Your task to perform on an android device: Search for "bose soundlink" on amazon, select the first entry, add it to the cart, then select checkout. Image 0: 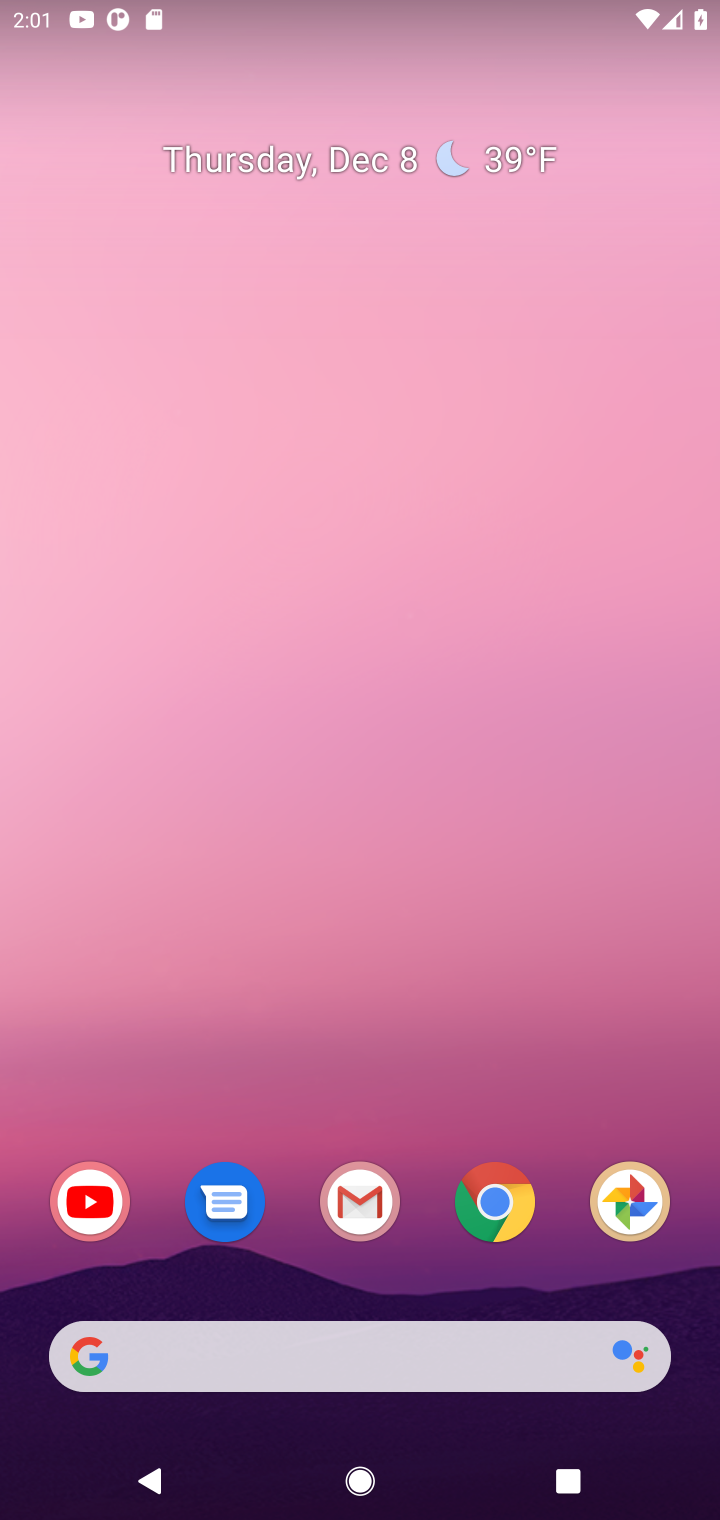
Step 0: click (504, 1187)
Your task to perform on an android device: Search for "bose soundlink" on amazon, select the first entry, add it to the cart, then select checkout. Image 1: 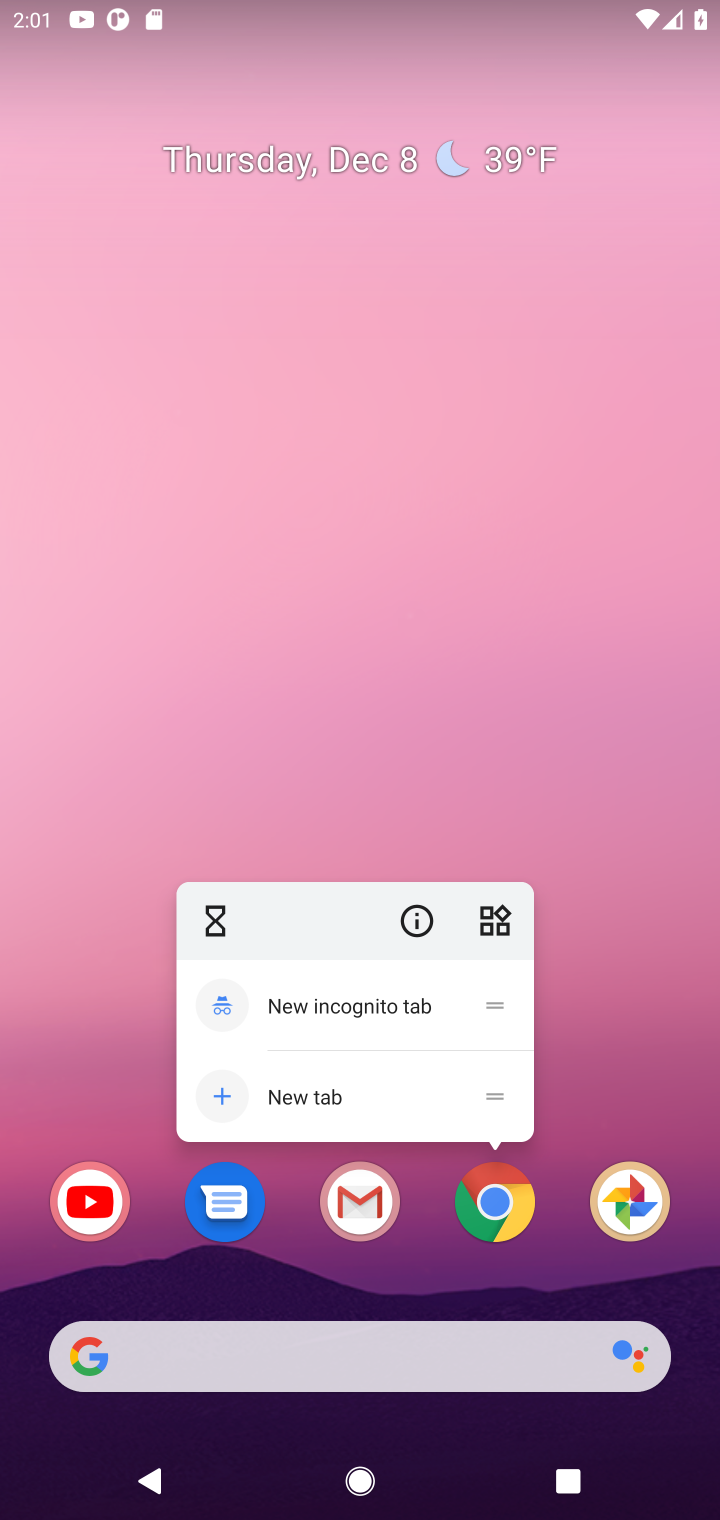
Step 1: click (512, 1180)
Your task to perform on an android device: Search for "bose soundlink" on amazon, select the first entry, add it to the cart, then select checkout. Image 2: 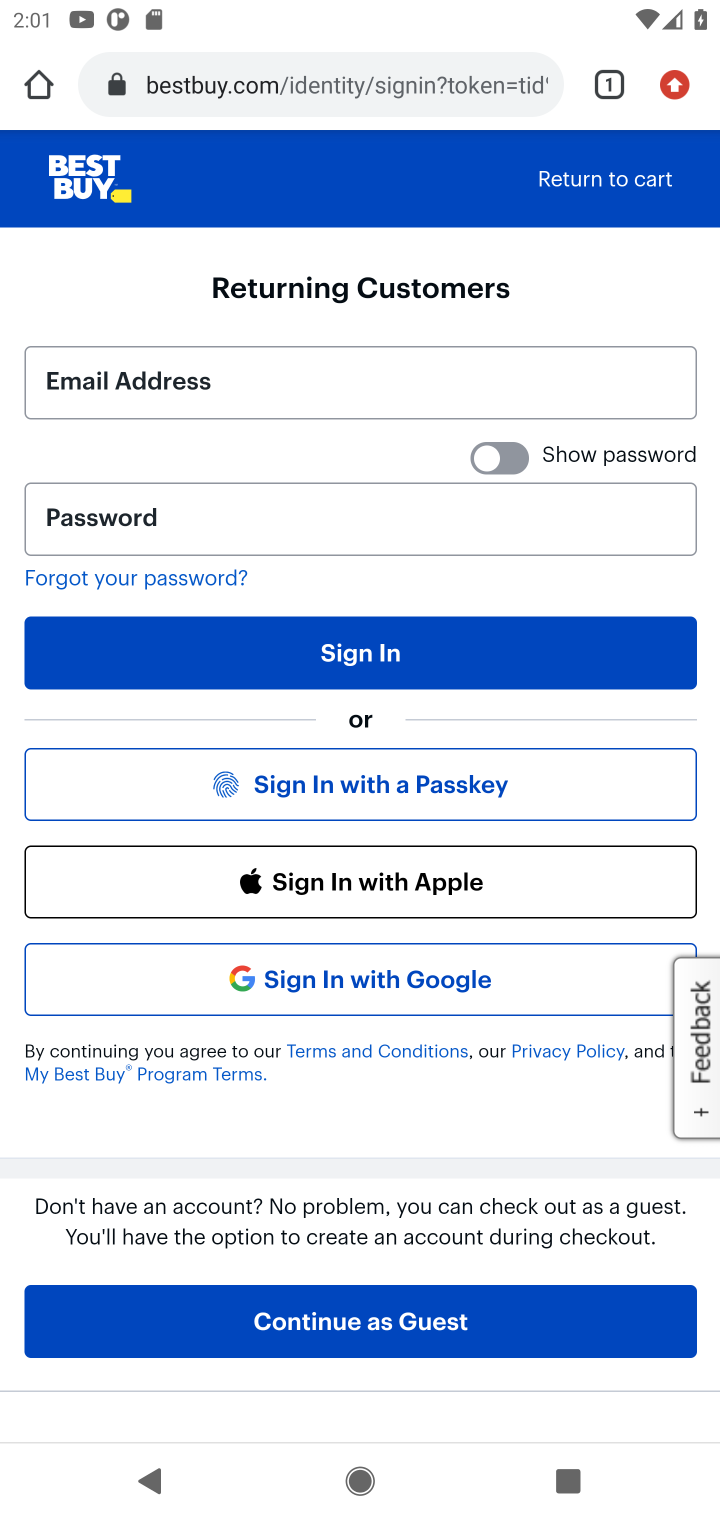
Step 2: click (253, 77)
Your task to perform on an android device: Search for "bose soundlink" on amazon, select the first entry, add it to the cart, then select checkout. Image 3: 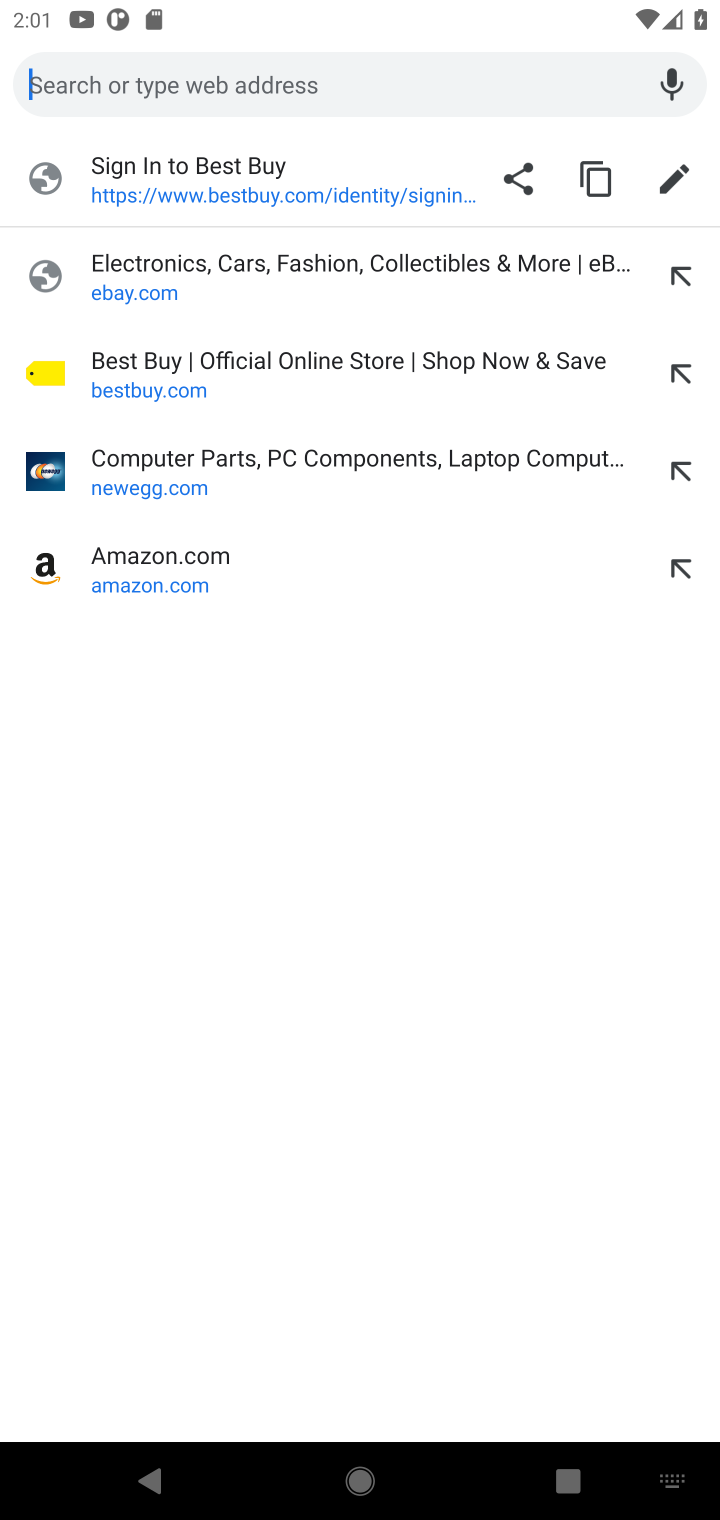
Step 3: click (129, 555)
Your task to perform on an android device: Search for "bose soundlink" on amazon, select the first entry, add it to the cart, then select checkout. Image 4: 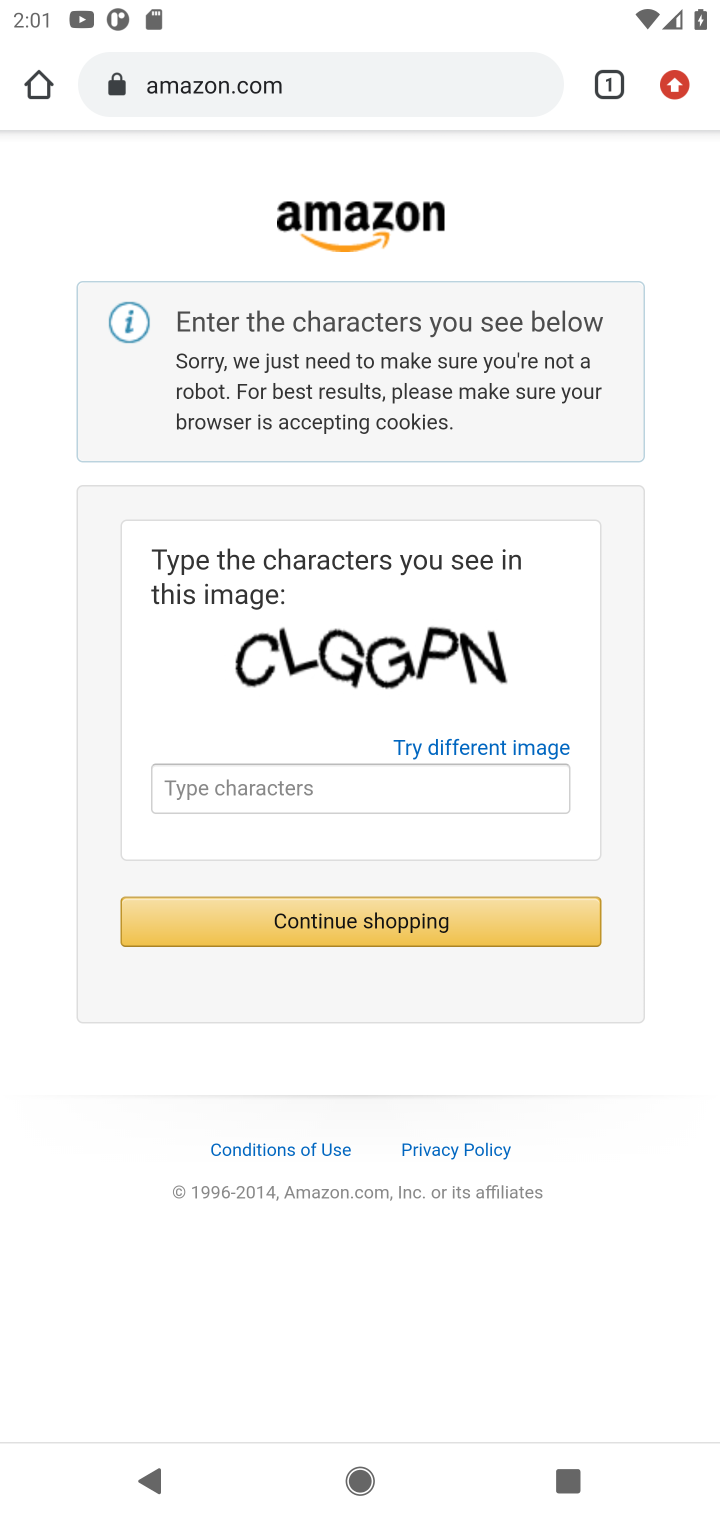
Step 4: press back button
Your task to perform on an android device: Search for "bose soundlink" on amazon, select the first entry, add it to the cart, then select checkout. Image 5: 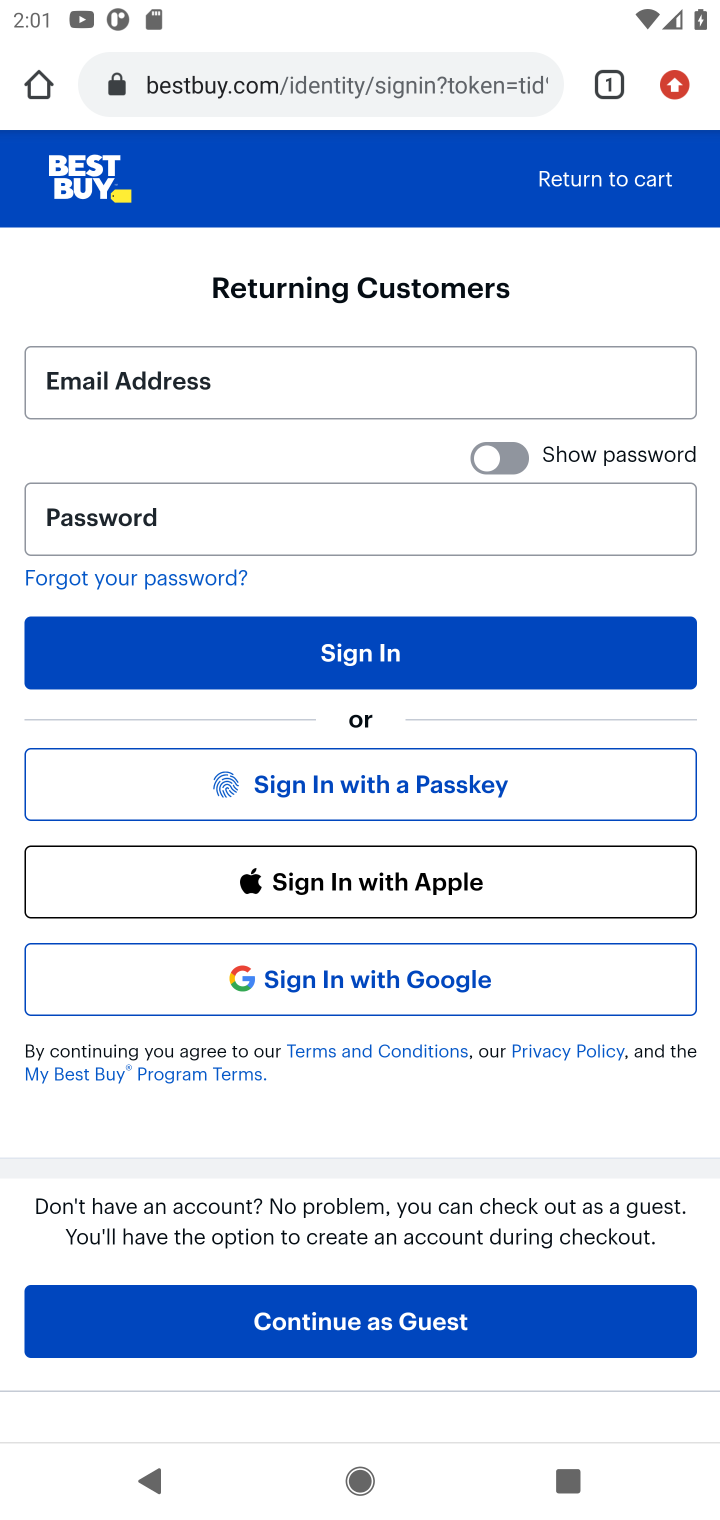
Step 5: click (36, 78)
Your task to perform on an android device: Search for "bose soundlink" on amazon, select the first entry, add it to the cart, then select checkout. Image 6: 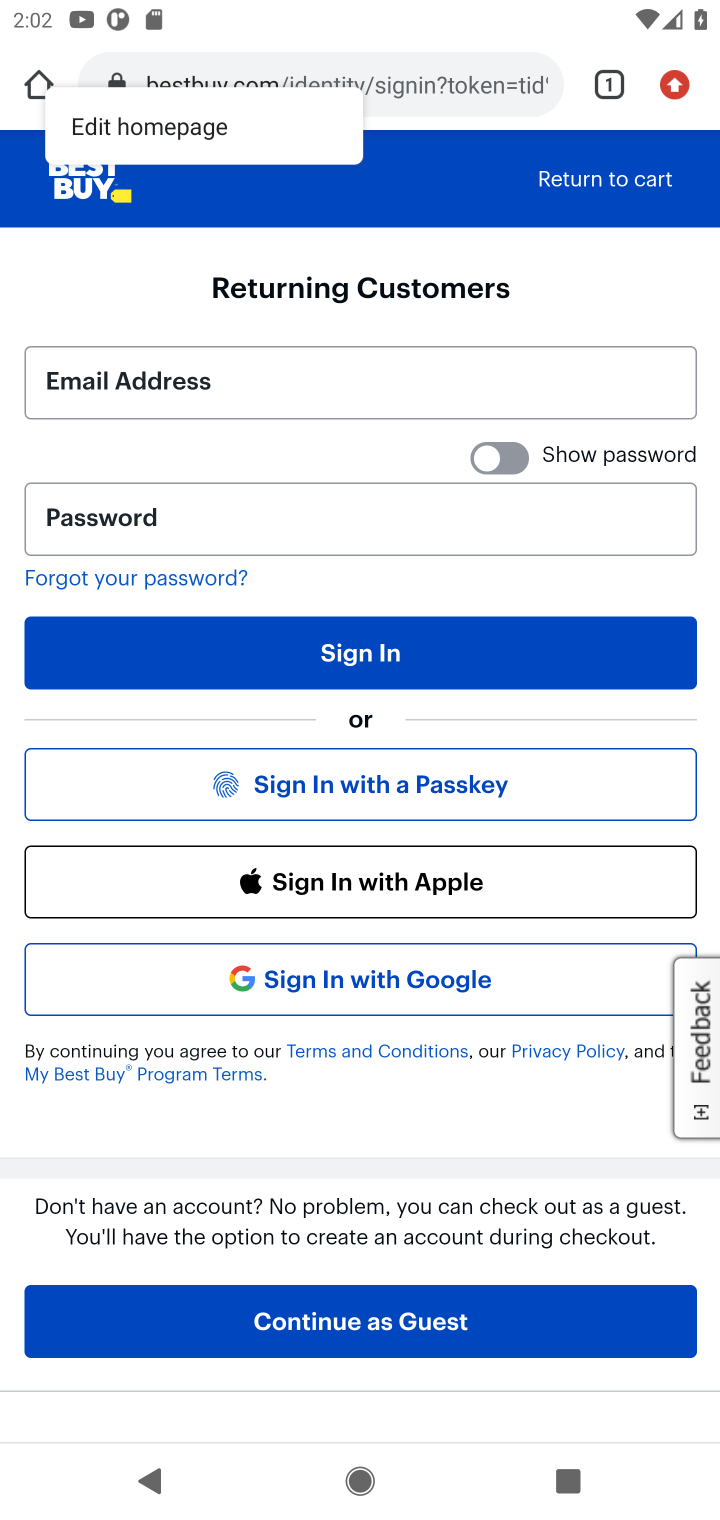
Step 6: click (41, 77)
Your task to perform on an android device: Search for "bose soundlink" on amazon, select the first entry, add it to the cart, then select checkout. Image 7: 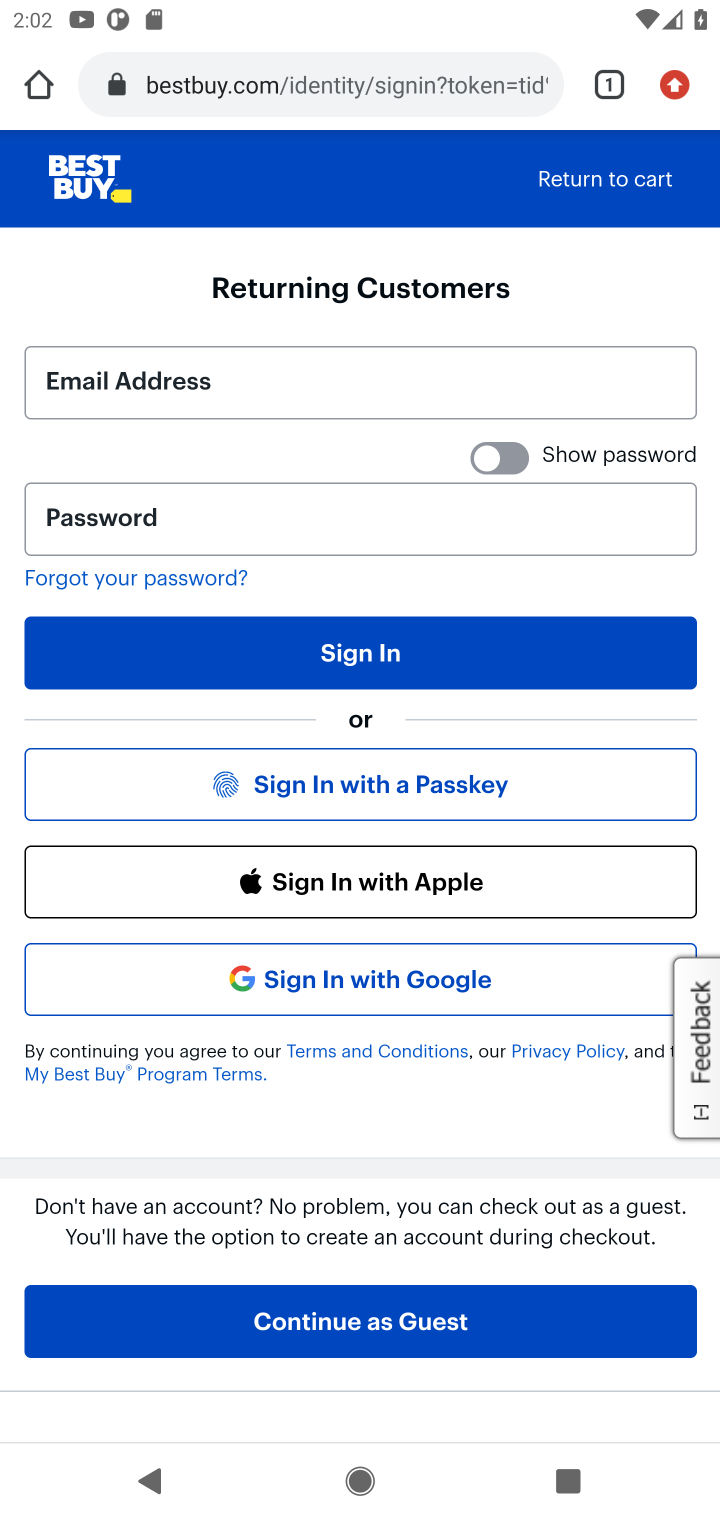
Step 7: click (32, 70)
Your task to perform on an android device: Search for "bose soundlink" on amazon, select the first entry, add it to the cart, then select checkout. Image 8: 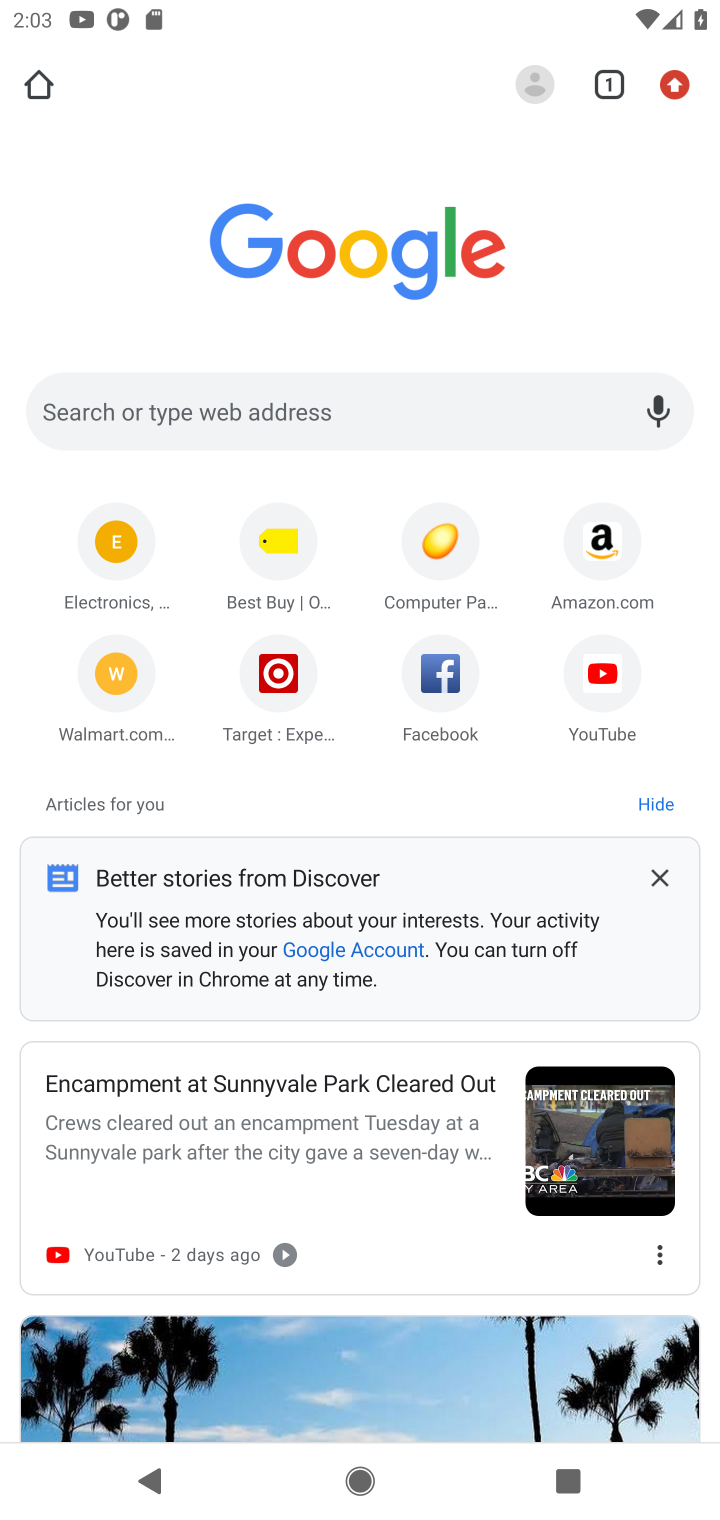
Step 8: click (608, 556)
Your task to perform on an android device: Search for "bose soundlink" on amazon, select the first entry, add it to the cart, then select checkout. Image 9: 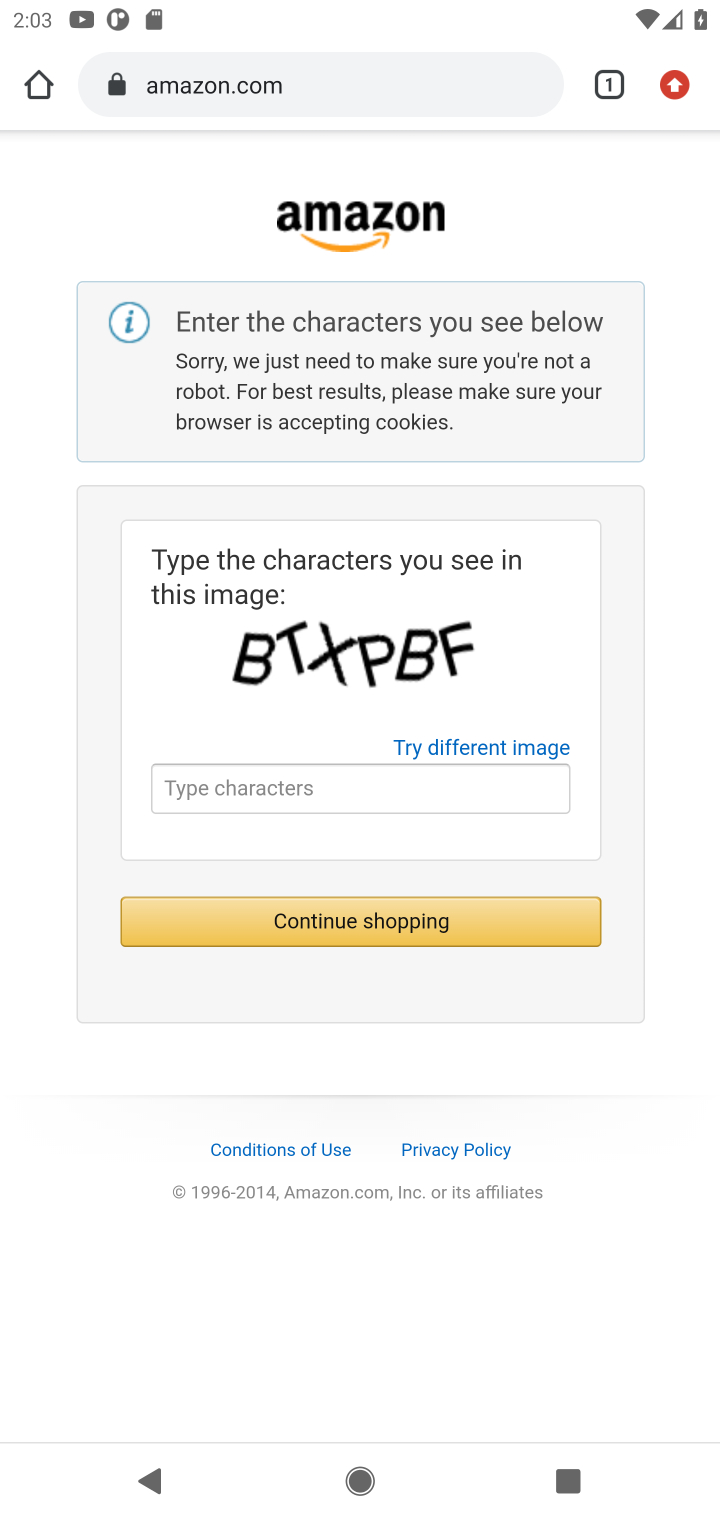
Step 9: task complete